Your task to perform on an android device: install app "eBay: The shopping marketplace" Image 0: 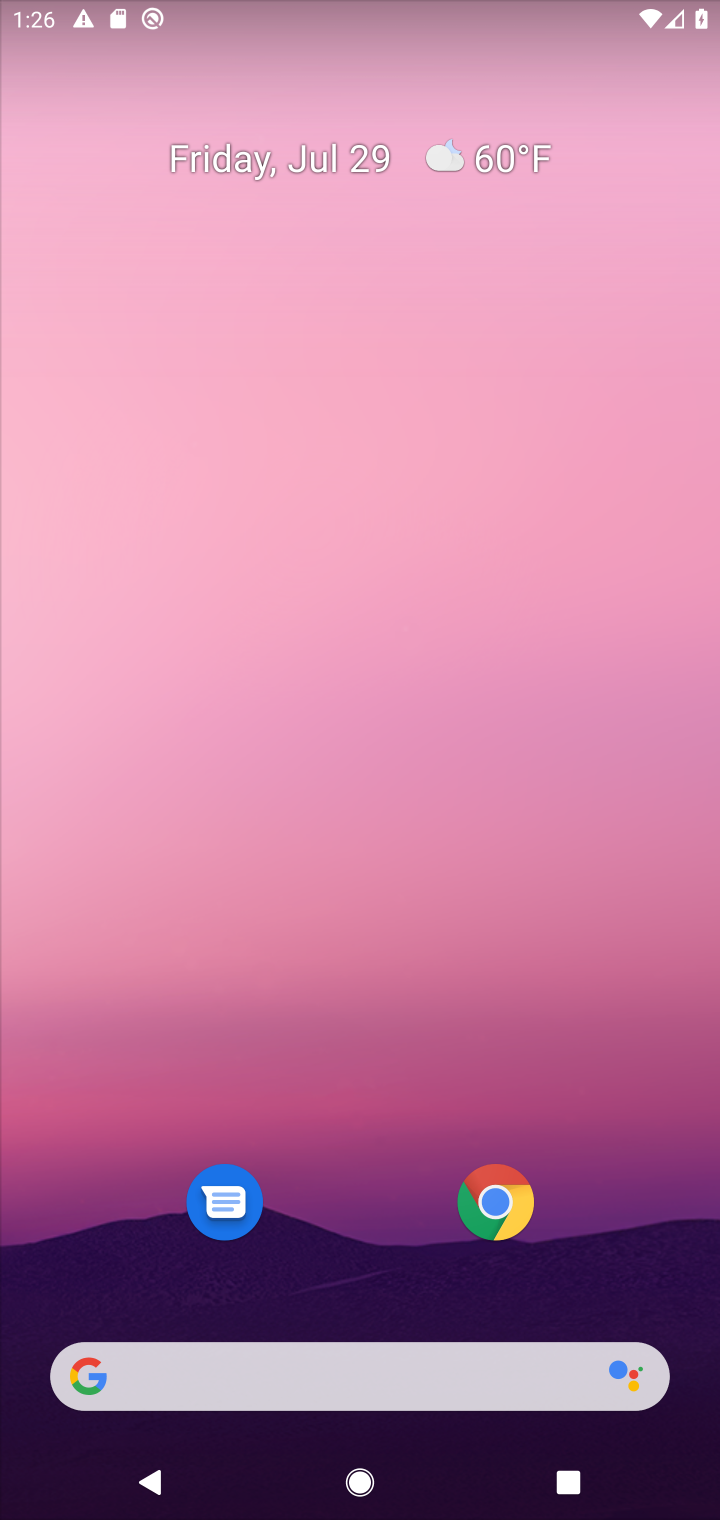
Step 0: click (416, 1382)
Your task to perform on an android device: install app "eBay: The shopping marketplace" Image 1: 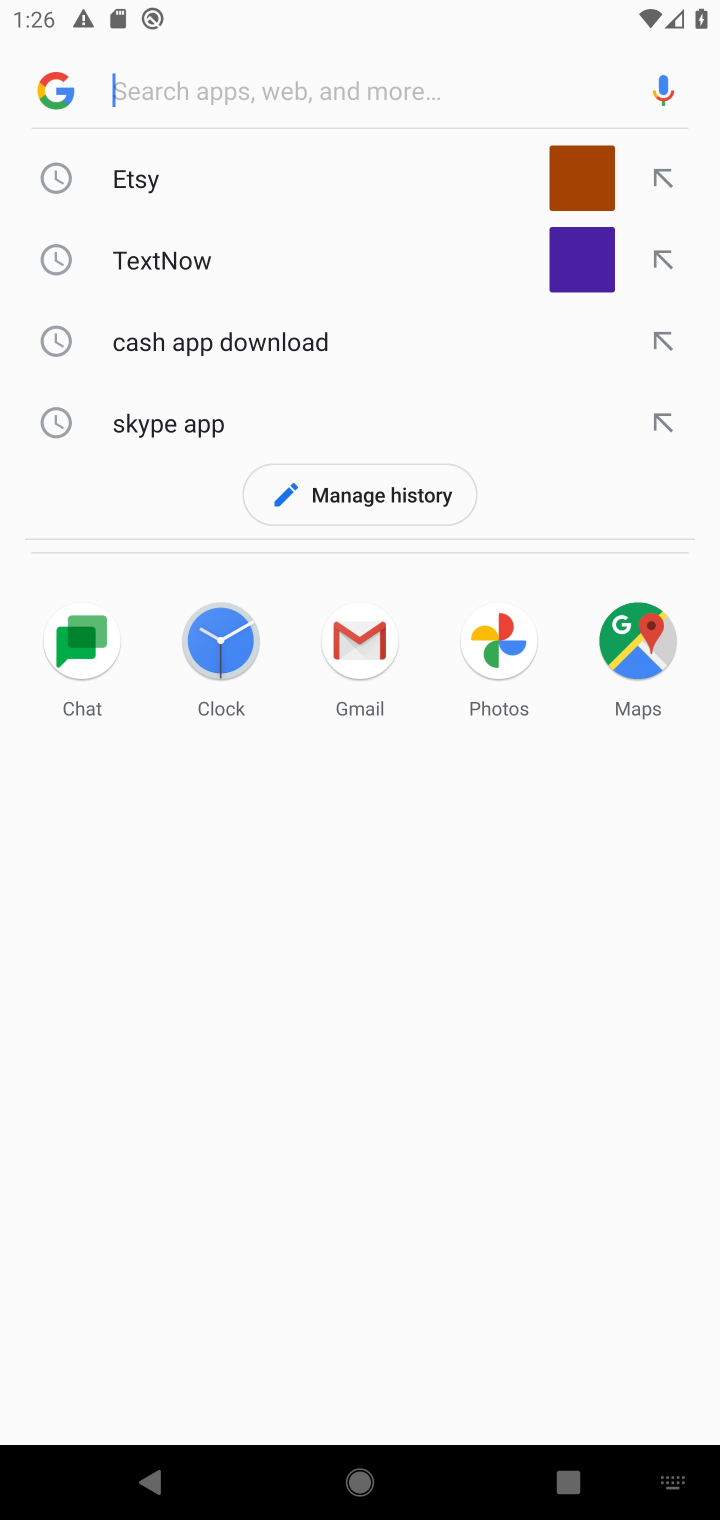
Step 1: type "ebay"
Your task to perform on an android device: install app "eBay: The shopping marketplace" Image 2: 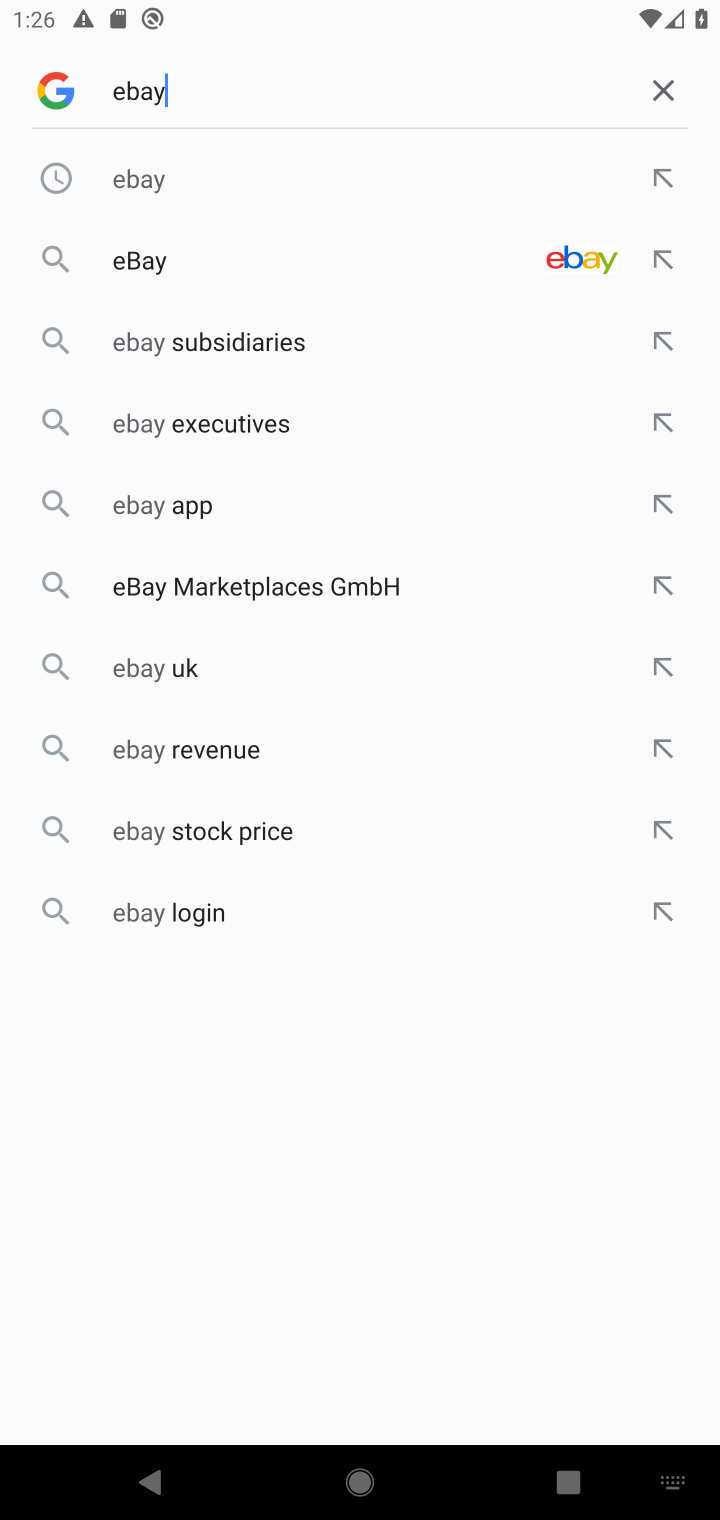
Step 2: click (561, 269)
Your task to perform on an android device: install app "eBay: The shopping marketplace" Image 3: 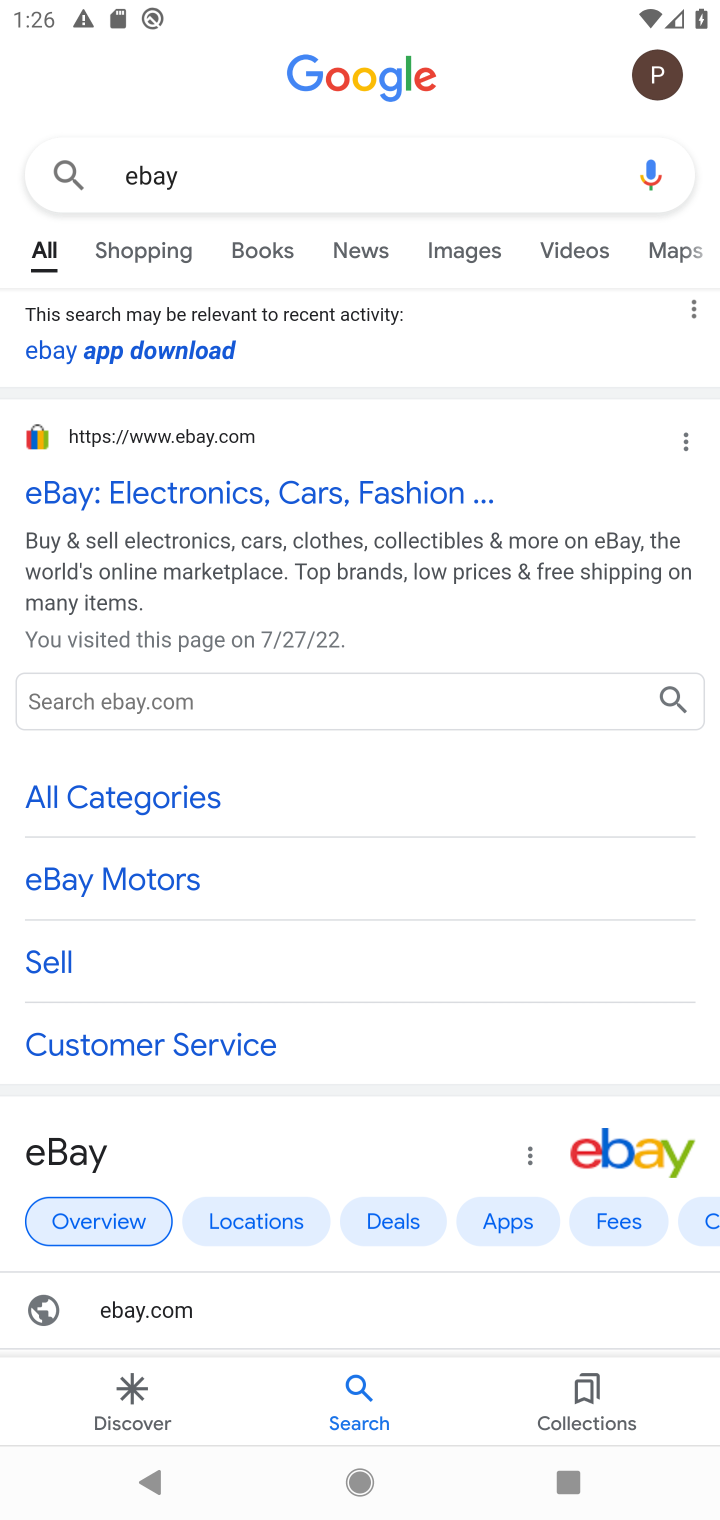
Step 3: drag from (308, 1166) to (278, 463)
Your task to perform on an android device: install app "eBay: The shopping marketplace" Image 4: 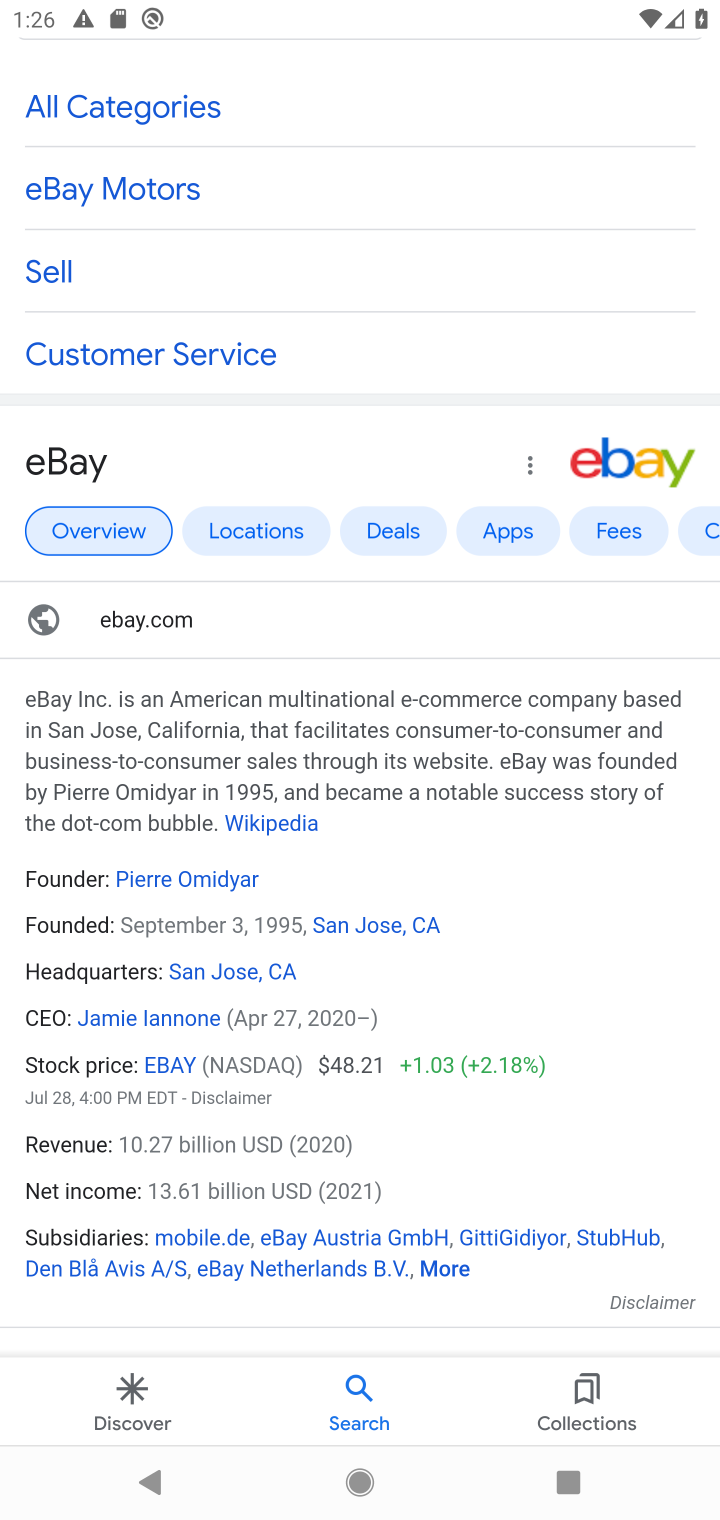
Step 4: drag from (527, 1191) to (526, 512)
Your task to perform on an android device: install app "eBay: The shopping marketplace" Image 5: 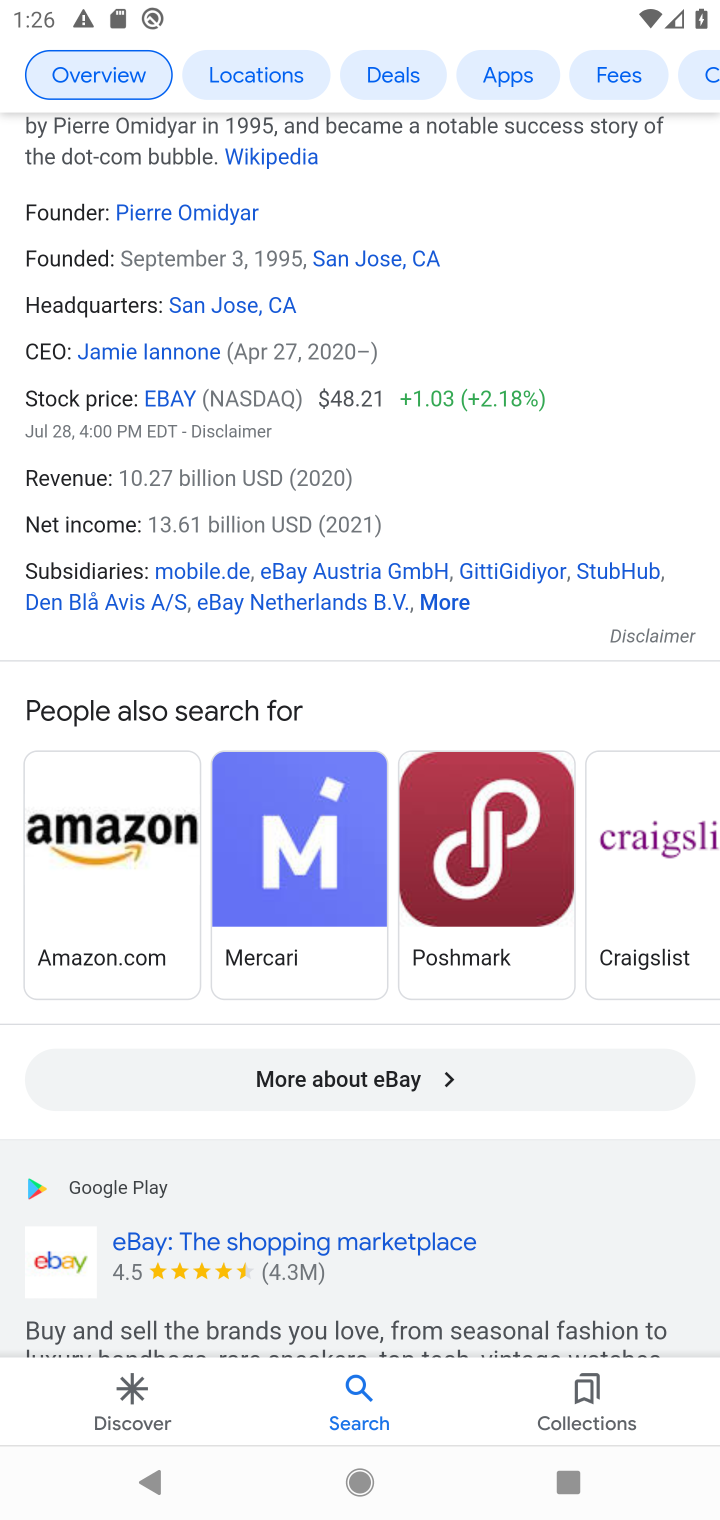
Step 5: drag from (555, 1214) to (553, 344)
Your task to perform on an android device: install app "eBay: The shopping marketplace" Image 6: 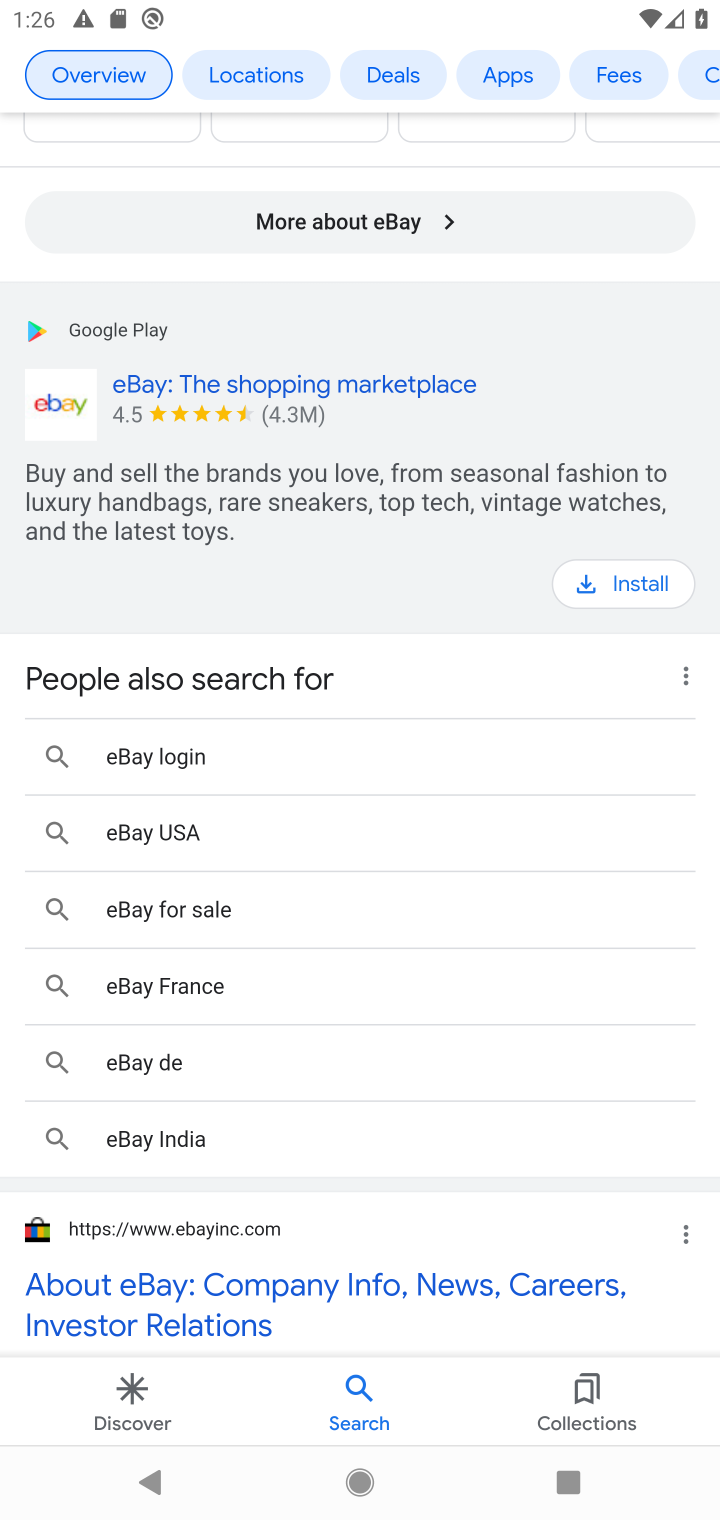
Step 6: click (614, 577)
Your task to perform on an android device: install app "eBay: The shopping marketplace" Image 7: 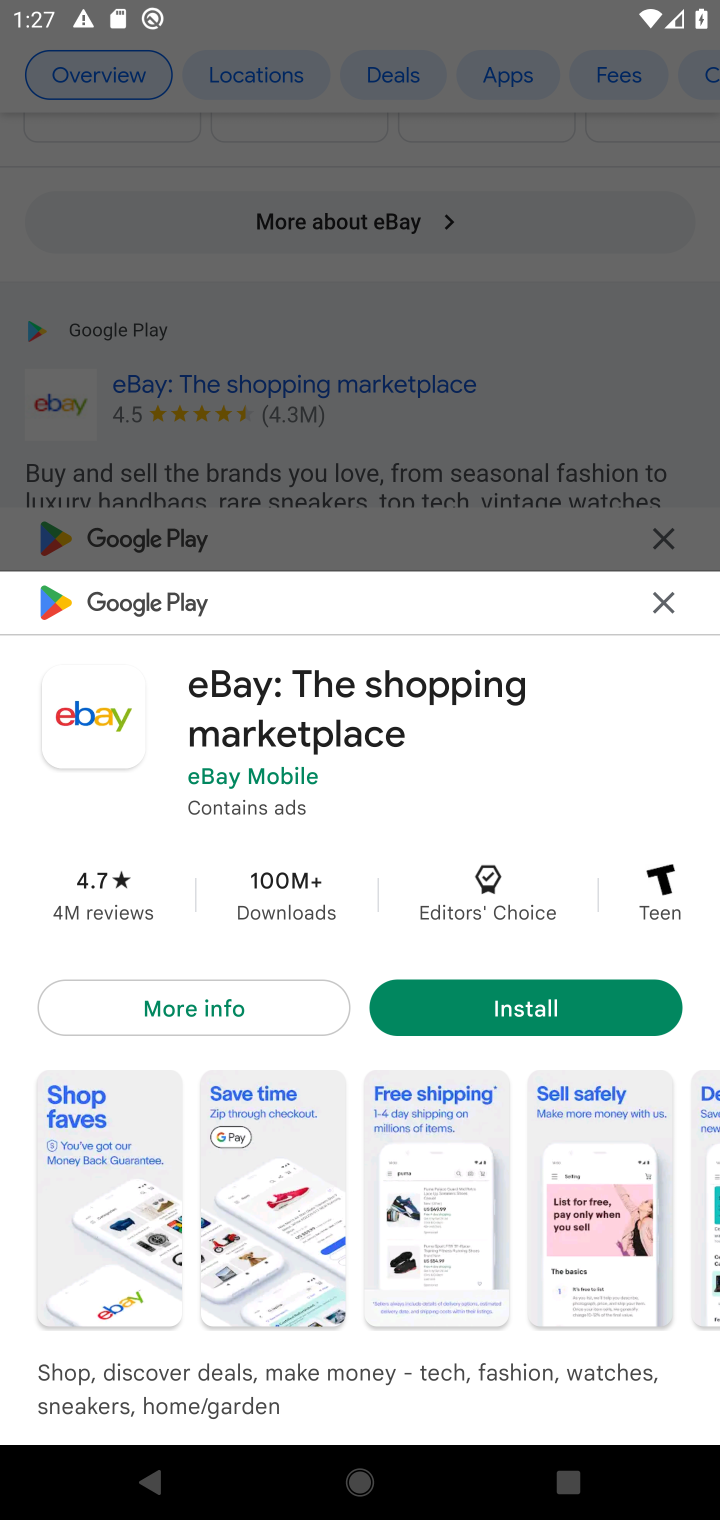
Step 7: click (457, 1030)
Your task to perform on an android device: install app "eBay: The shopping marketplace" Image 8: 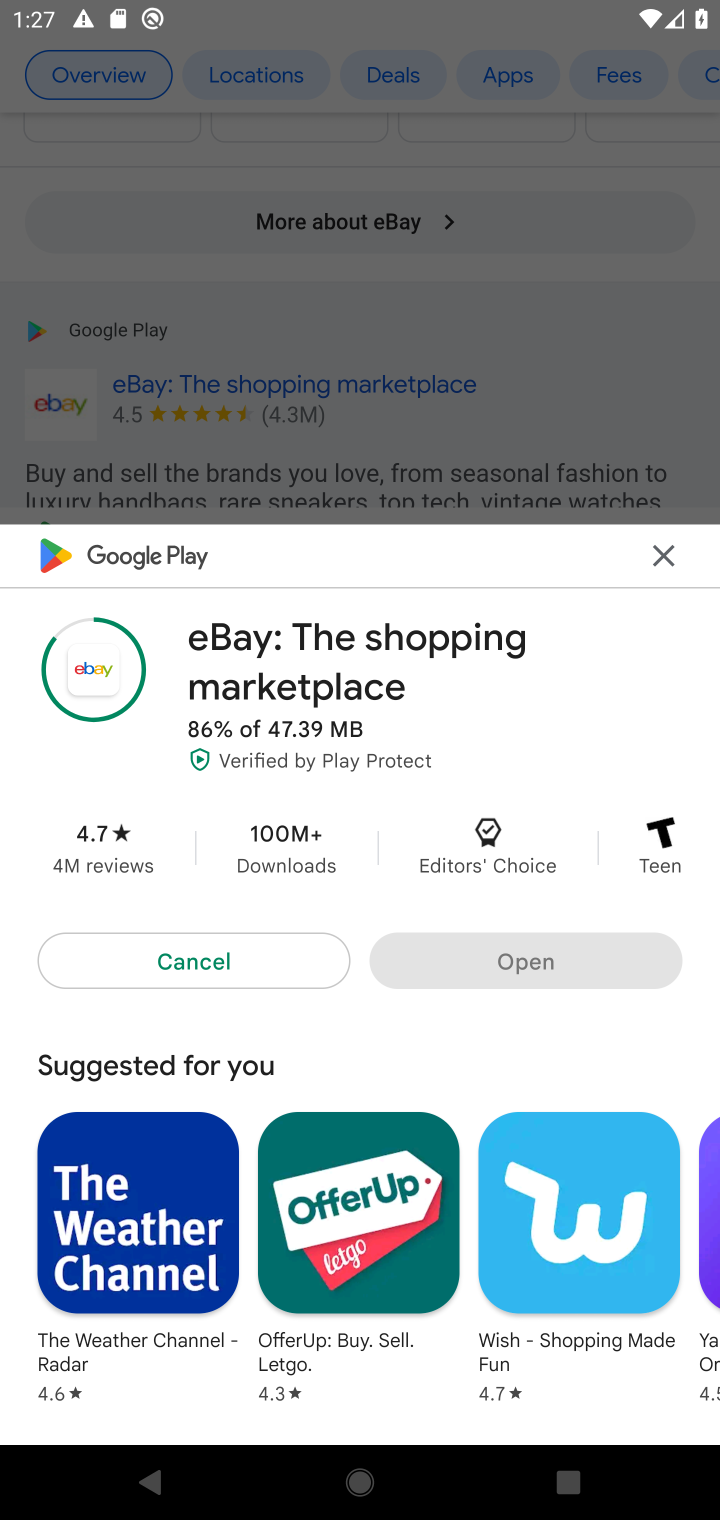
Step 8: task complete